Your task to perform on an android device: Go to wifi settings Image 0: 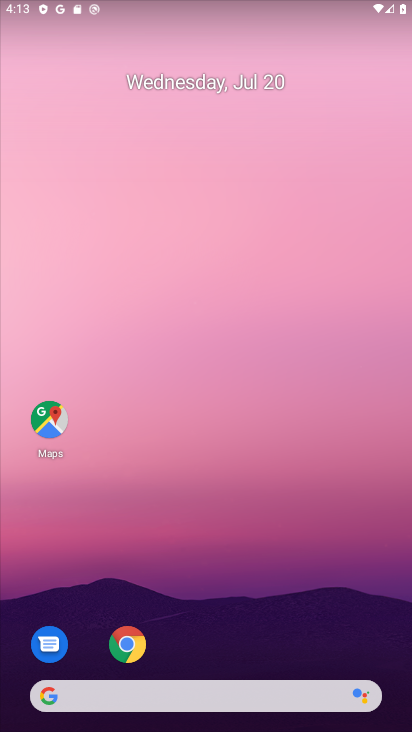
Step 0: press home button
Your task to perform on an android device: Go to wifi settings Image 1: 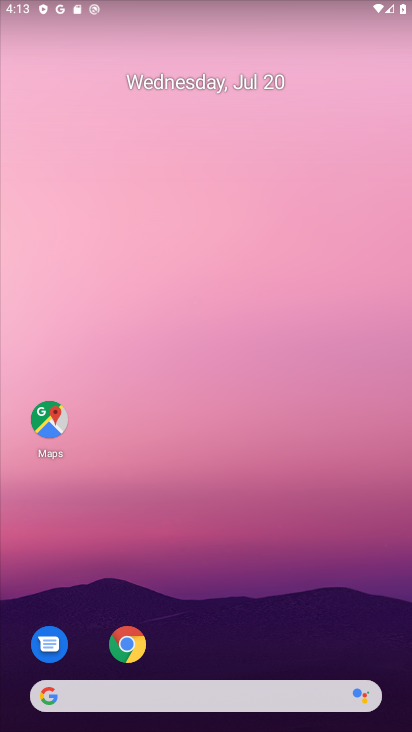
Step 1: drag from (245, 640) to (229, 60)
Your task to perform on an android device: Go to wifi settings Image 2: 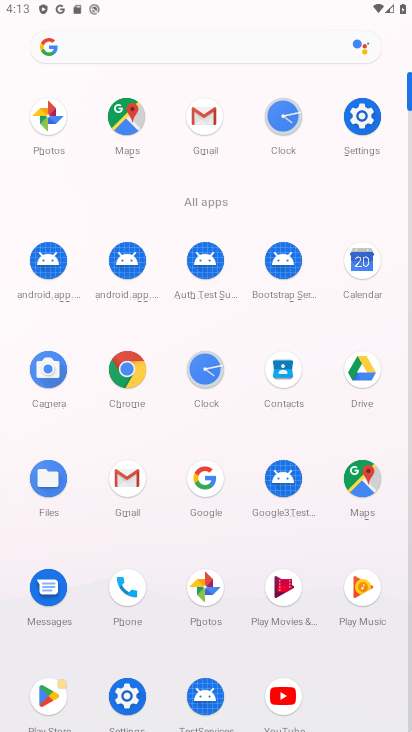
Step 2: click (353, 108)
Your task to perform on an android device: Go to wifi settings Image 3: 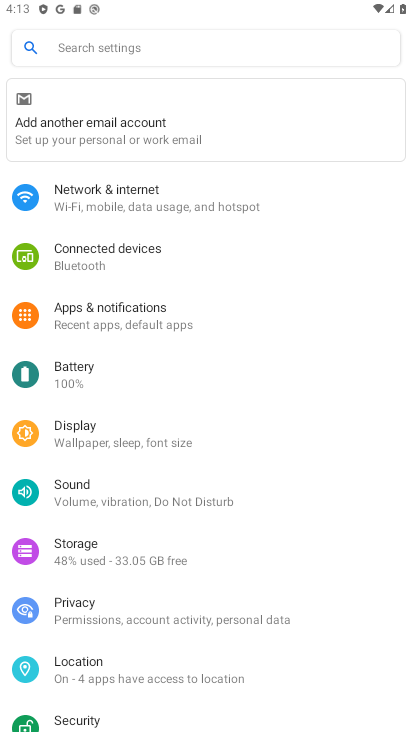
Step 3: click (104, 198)
Your task to perform on an android device: Go to wifi settings Image 4: 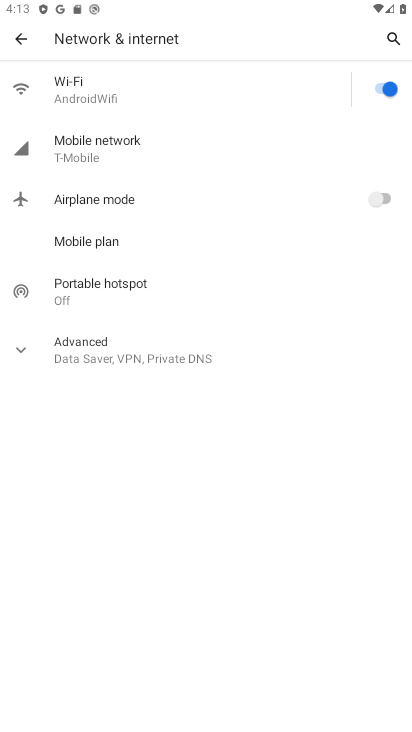
Step 4: click (166, 93)
Your task to perform on an android device: Go to wifi settings Image 5: 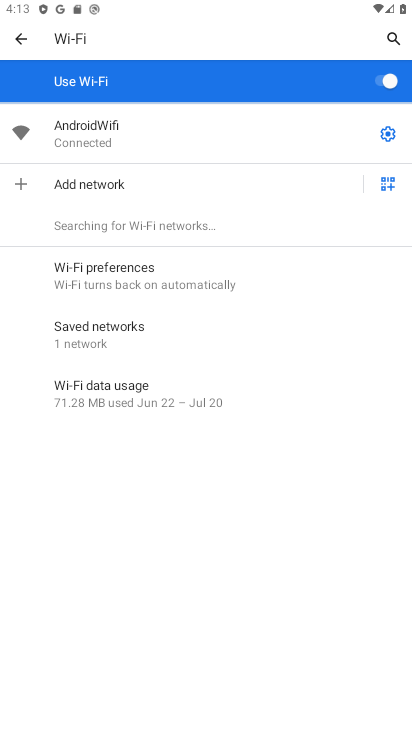
Step 5: task complete